Your task to perform on an android device: toggle priority inbox in the gmail app Image 0: 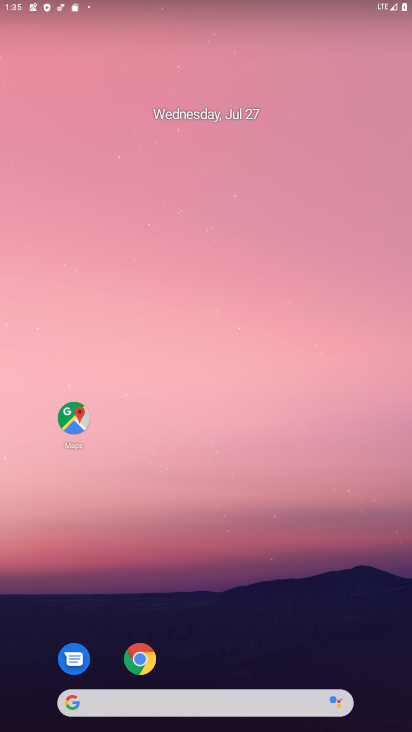
Step 0: drag from (208, 723) to (227, 58)
Your task to perform on an android device: toggle priority inbox in the gmail app Image 1: 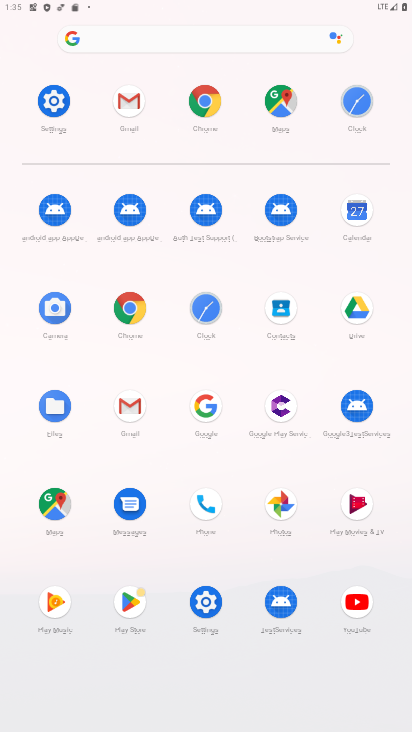
Step 1: click (131, 405)
Your task to perform on an android device: toggle priority inbox in the gmail app Image 2: 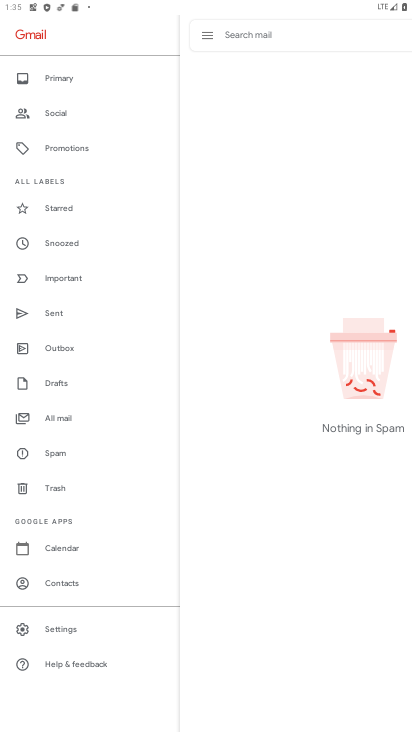
Step 2: click (54, 625)
Your task to perform on an android device: toggle priority inbox in the gmail app Image 3: 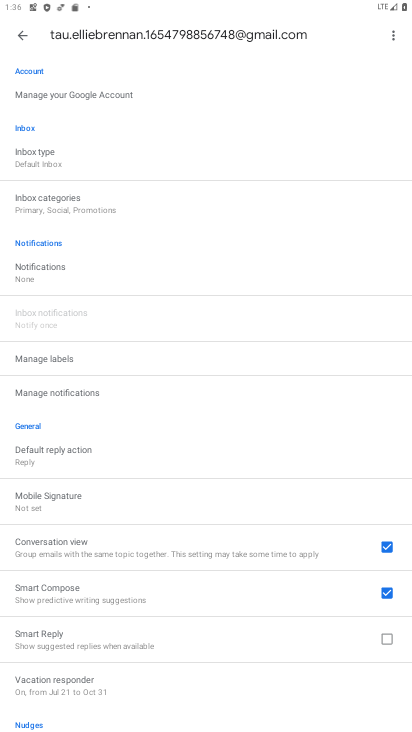
Step 3: click (35, 159)
Your task to perform on an android device: toggle priority inbox in the gmail app Image 4: 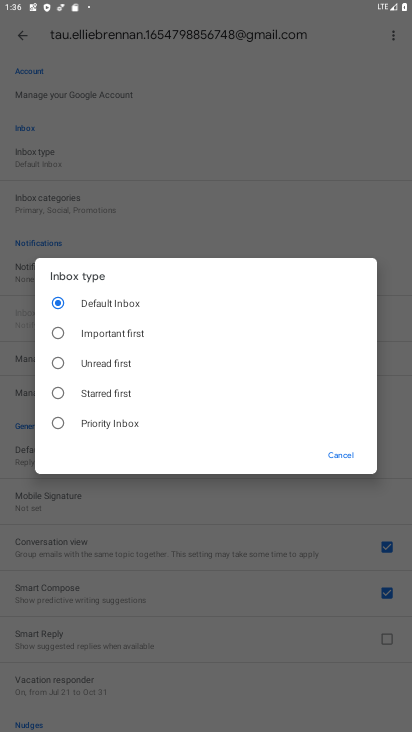
Step 4: click (56, 423)
Your task to perform on an android device: toggle priority inbox in the gmail app Image 5: 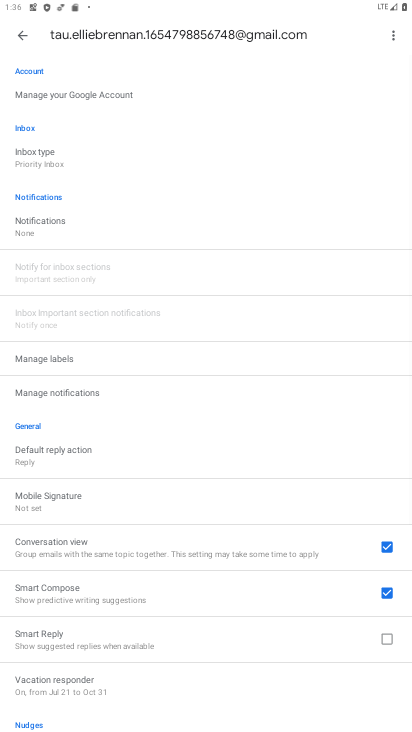
Step 5: task complete